Your task to perform on an android device: Empty the shopping cart on newegg.com. Search for usb-c to usb-b on newegg.com, select the first entry, and add it to the cart. Image 0: 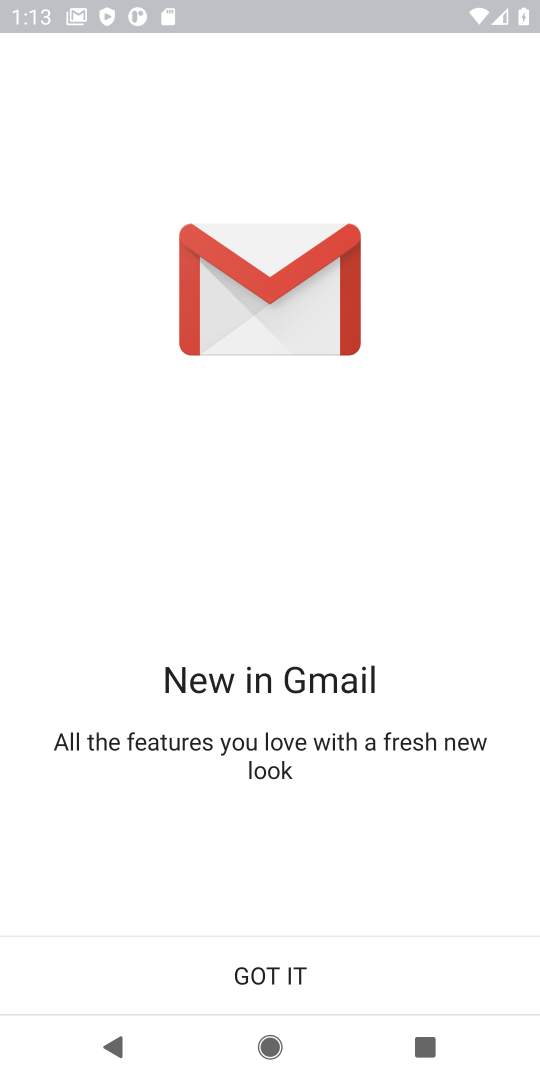
Step 0: press home button
Your task to perform on an android device: Empty the shopping cart on newegg.com. Search for usb-c to usb-b on newegg.com, select the first entry, and add it to the cart. Image 1: 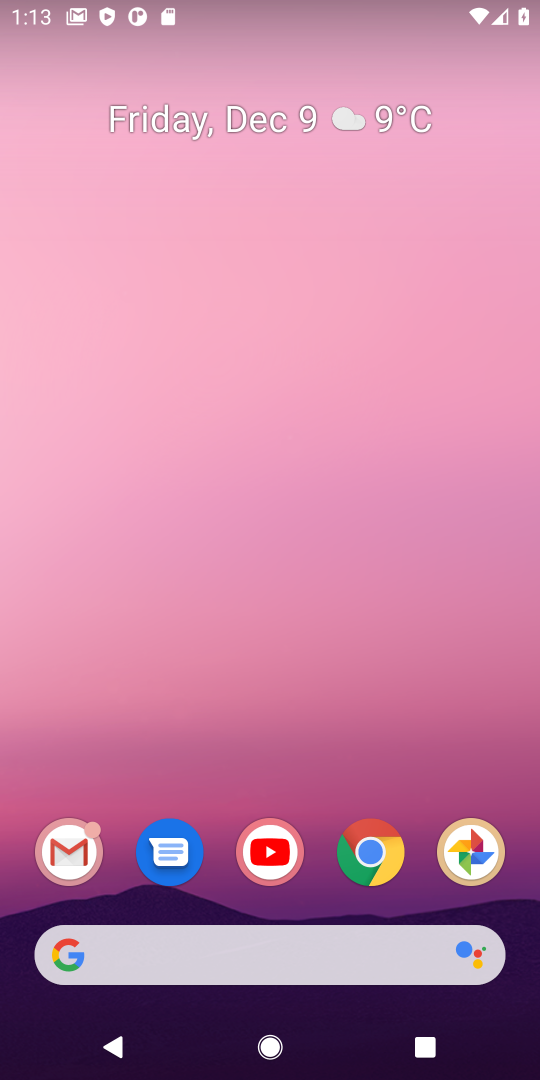
Step 1: click (373, 858)
Your task to perform on an android device: Empty the shopping cart on newegg.com. Search for usb-c to usb-b on newegg.com, select the first entry, and add it to the cart. Image 2: 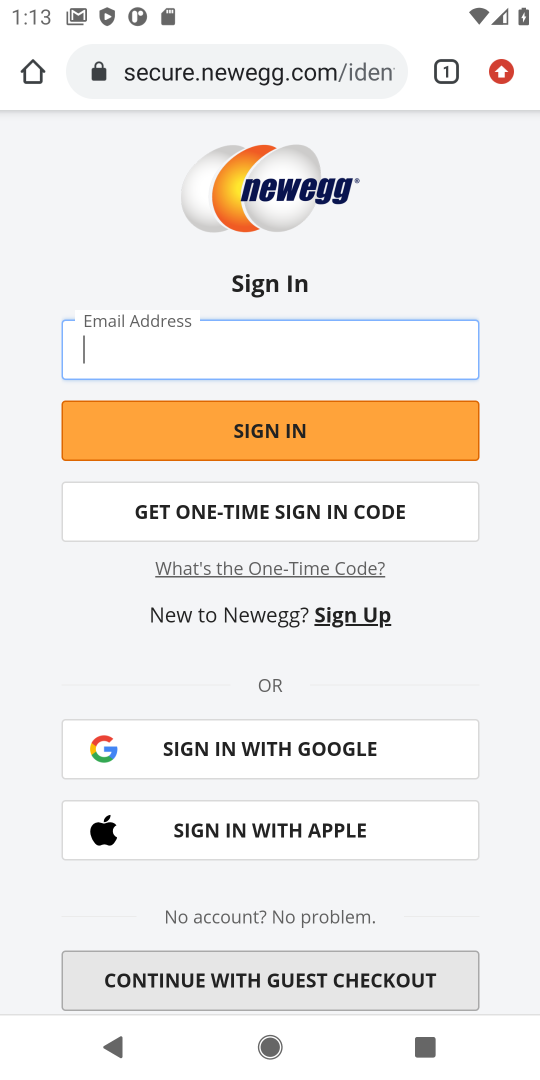
Step 2: click (183, 89)
Your task to perform on an android device: Empty the shopping cart on newegg.com. Search for usb-c to usb-b on newegg.com, select the first entry, and add it to the cart. Image 3: 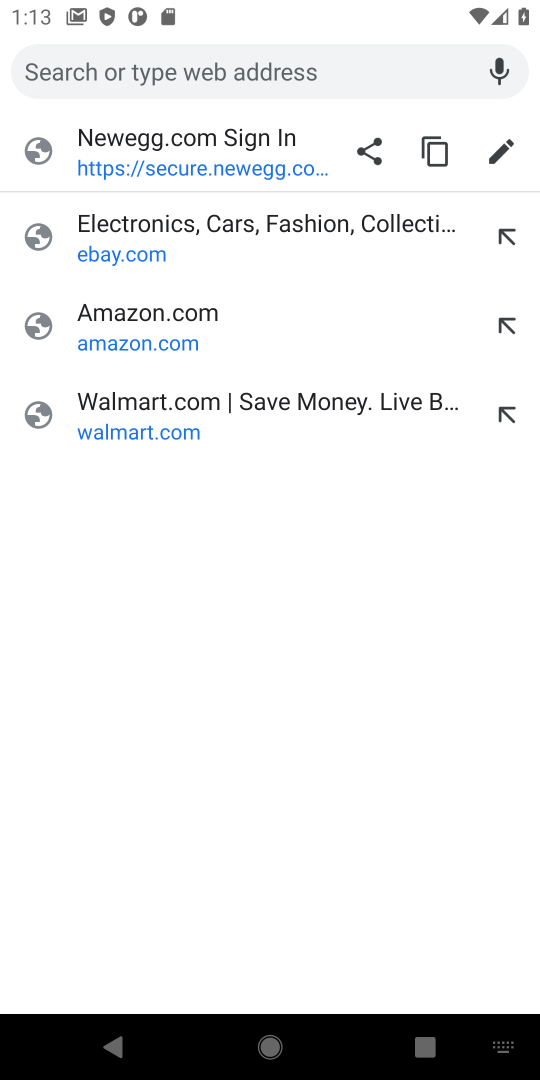
Step 3: type "newegg.com"
Your task to perform on an android device: Empty the shopping cart on newegg.com. Search for usb-c to usb-b on newegg.com, select the first entry, and add it to the cart. Image 4: 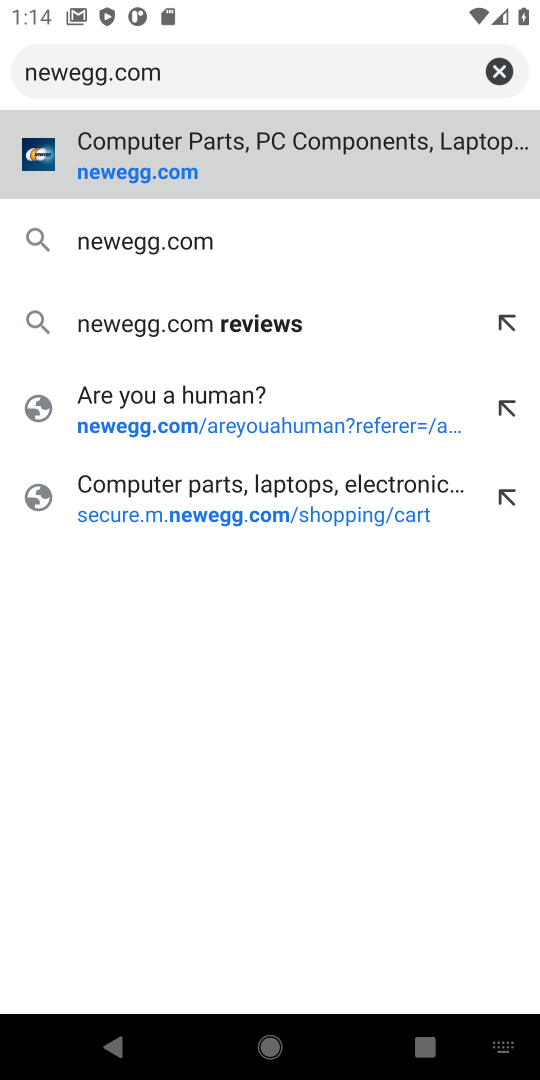
Step 4: click (184, 163)
Your task to perform on an android device: Empty the shopping cart on newegg.com. Search for usb-c to usb-b on newegg.com, select the first entry, and add it to the cart. Image 5: 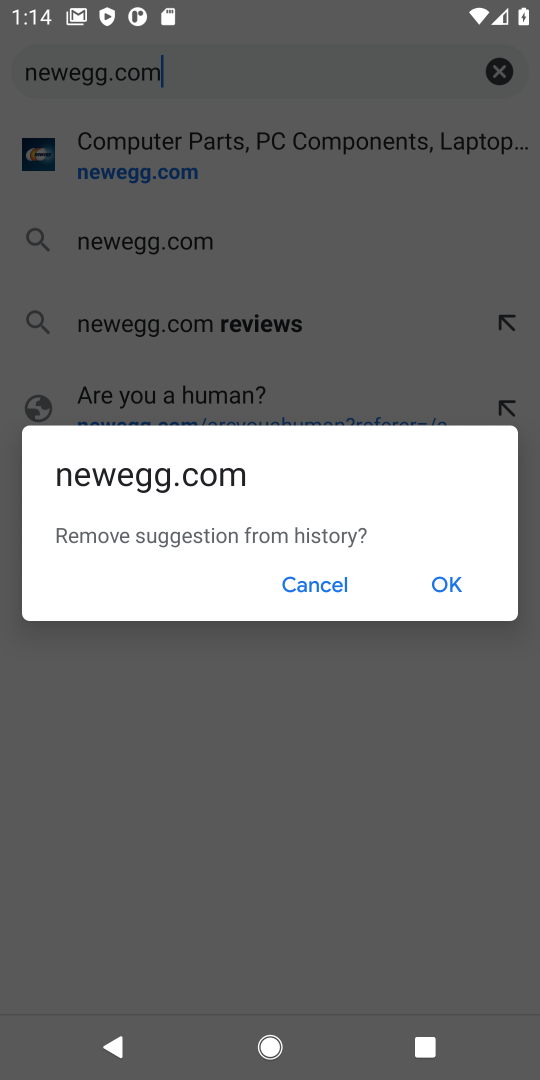
Step 5: click (450, 591)
Your task to perform on an android device: Empty the shopping cart on newegg.com. Search for usb-c to usb-b on newegg.com, select the first entry, and add it to the cart. Image 6: 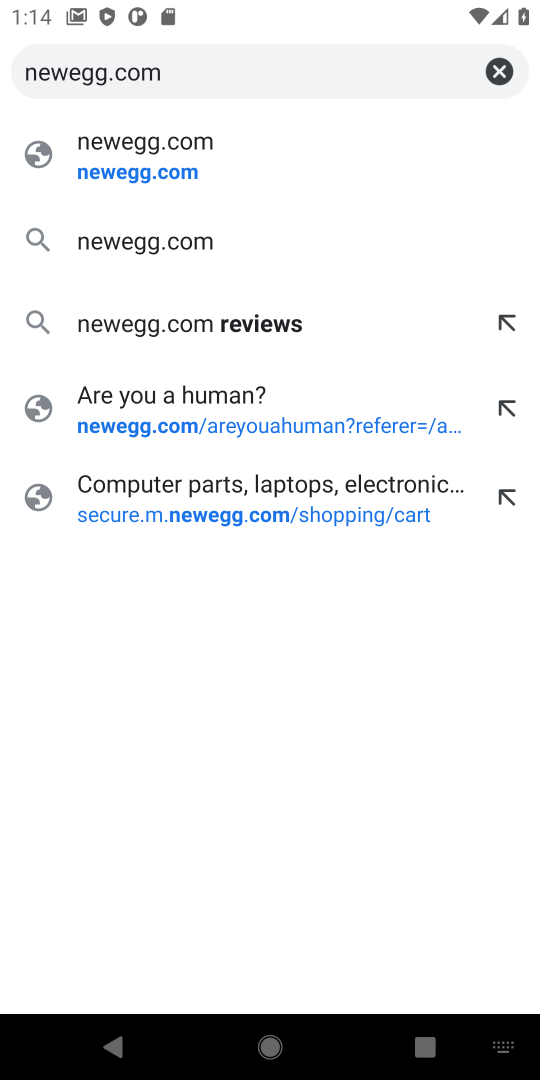
Step 6: click (141, 170)
Your task to perform on an android device: Empty the shopping cart on newegg.com. Search for usb-c to usb-b on newegg.com, select the first entry, and add it to the cart. Image 7: 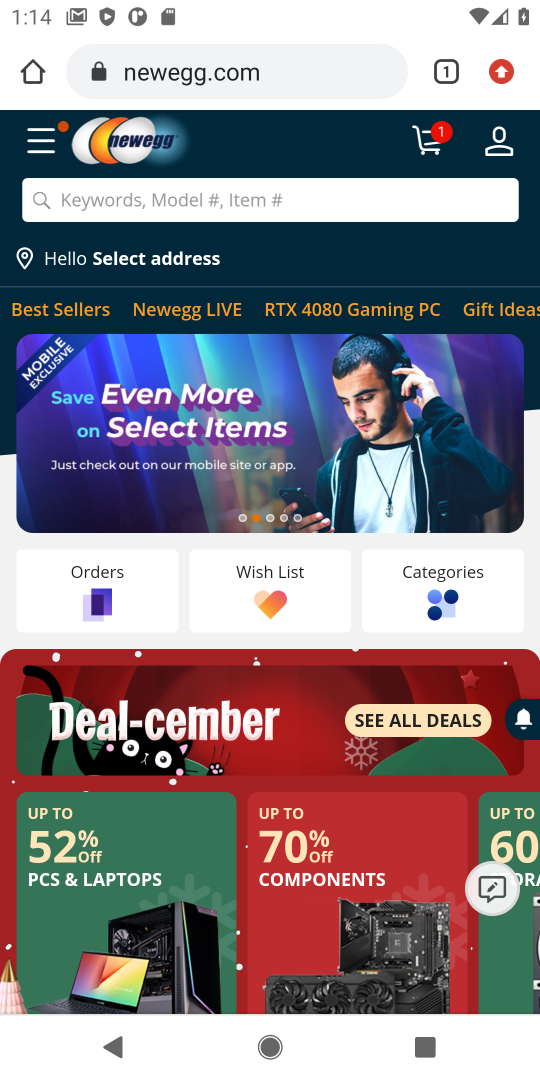
Step 7: click (437, 149)
Your task to perform on an android device: Empty the shopping cart on newegg.com. Search for usb-c to usb-b on newegg.com, select the first entry, and add it to the cart. Image 8: 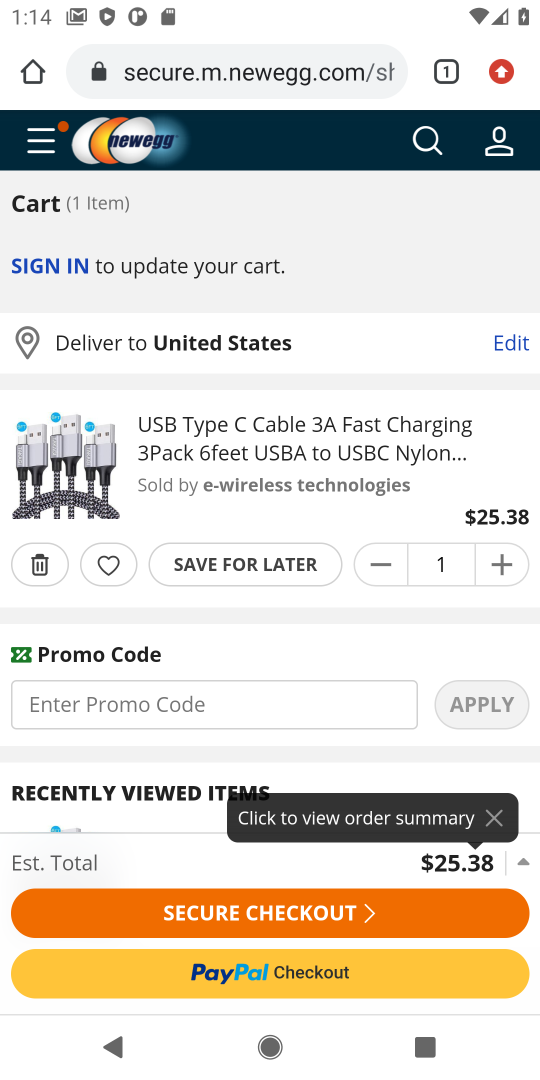
Step 8: click (37, 573)
Your task to perform on an android device: Empty the shopping cart on newegg.com. Search for usb-c to usb-b on newegg.com, select the first entry, and add it to the cart. Image 9: 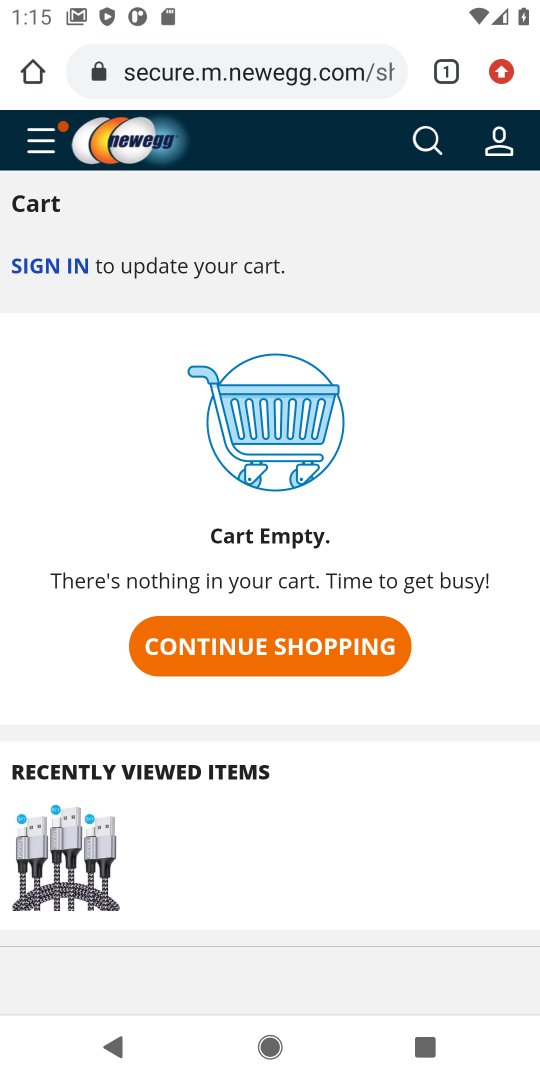
Step 9: click (430, 120)
Your task to perform on an android device: Empty the shopping cart on newegg.com. Search for usb-c to usb-b on newegg.com, select the first entry, and add it to the cart. Image 10: 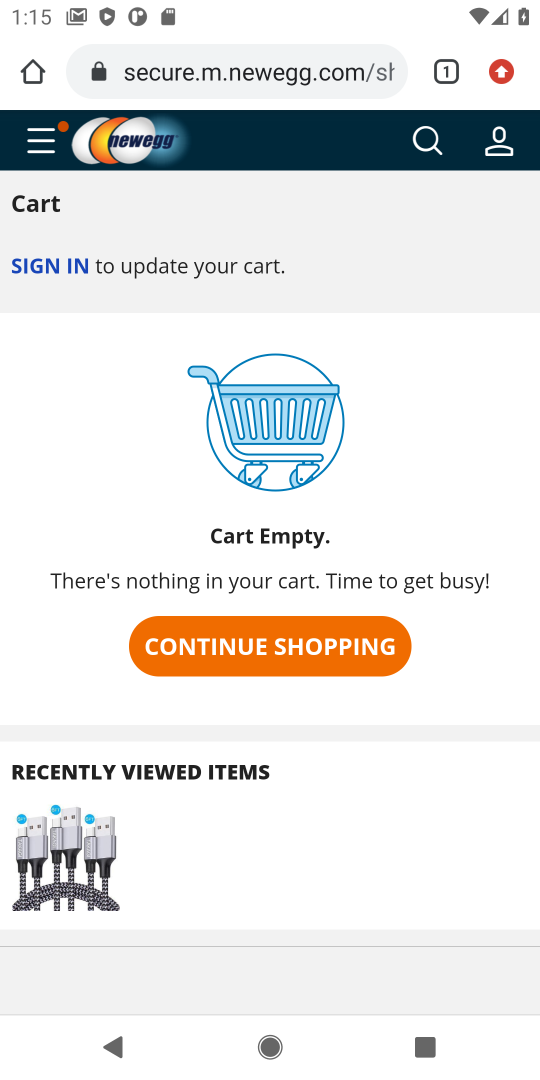
Step 10: click (427, 146)
Your task to perform on an android device: Empty the shopping cart on newegg.com. Search for usb-c to usb-b on newegg.com, select the first entry, and add it to the cart. Image 11: 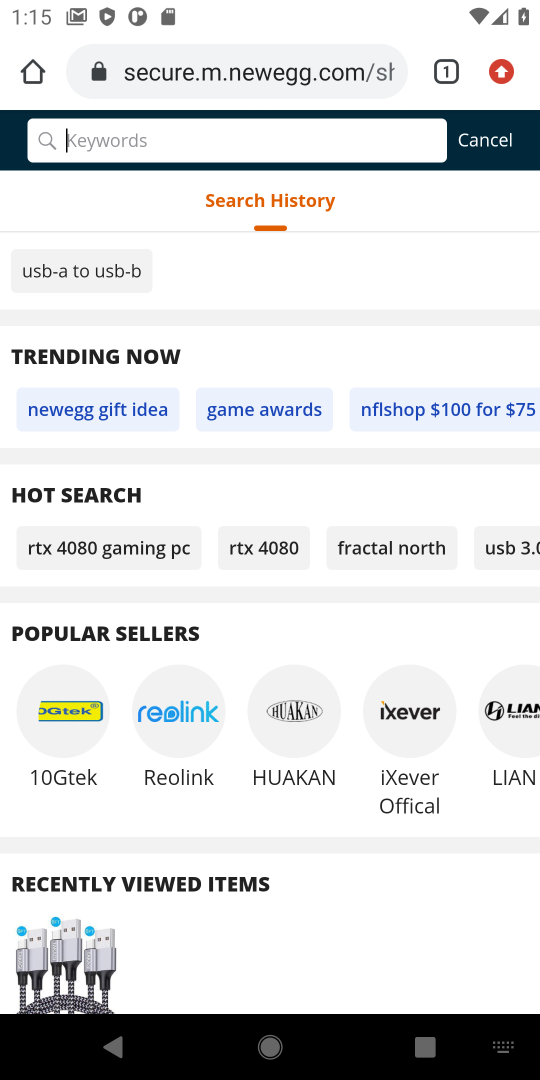
Step 11: type "usb-c to usb-b"
Your task to perform on an android device: Empty the shopping cart on newegg.com. Search for usb-c to usb-b on newegg.com, select the first entry, and add it to the cart. Image 12: 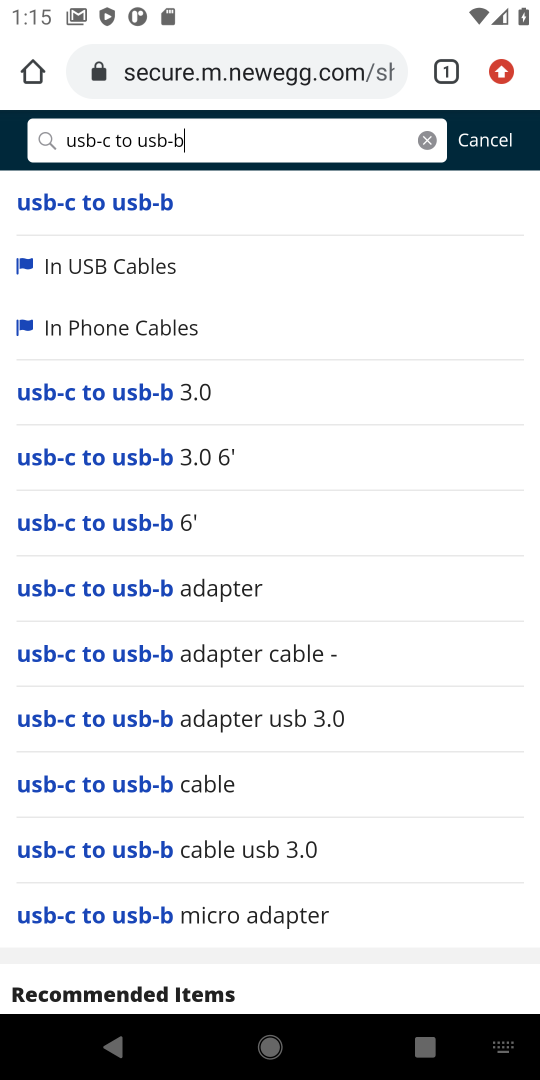
Step 12: press enter
Your task to perform on an android device: Empty the shopping cart on newegg.com. Search for usb-c to usb-b on newegg.com, select the first entry, and add it to the cart. Image 13: 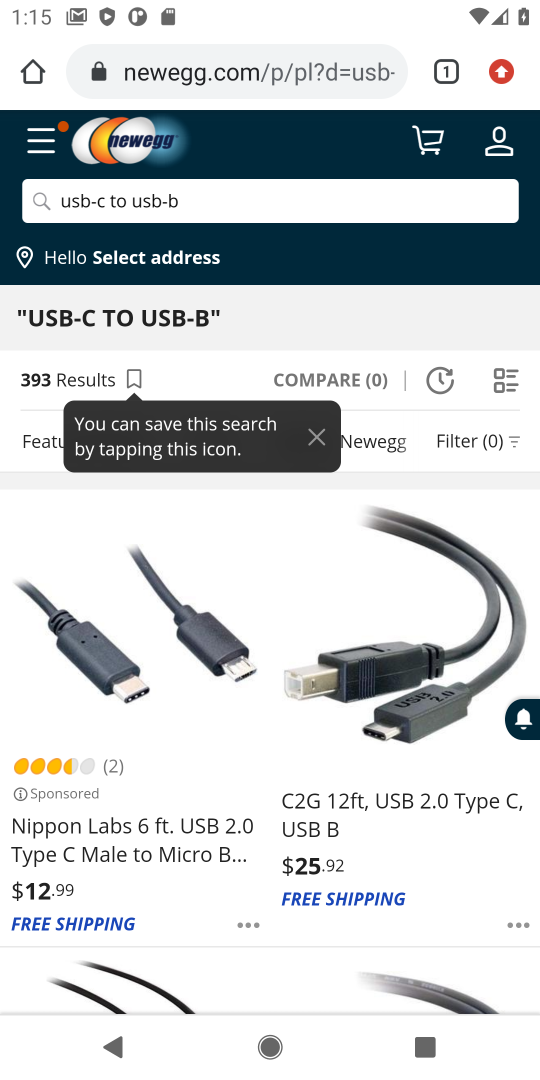
Step 13: click (163, 657)
Your task to perform on an android device: Empty the shopping cart on newegg.com. Search for usb-c to usb-b on newegg.com, select the first entry, and add it to the cart. Image 14: 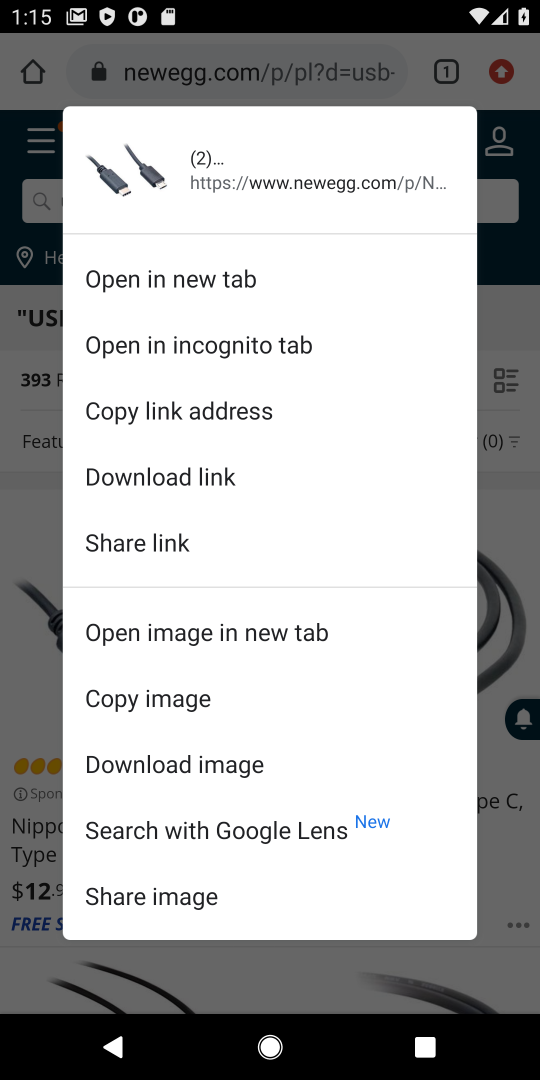
Step 14: click (53, 636)
Your task to perform on an android device: Empty the shopping cart on newegg.com. Search for usb-c to usb-b on newegg.com, select the first entry, and add it to the cart. Image 15: 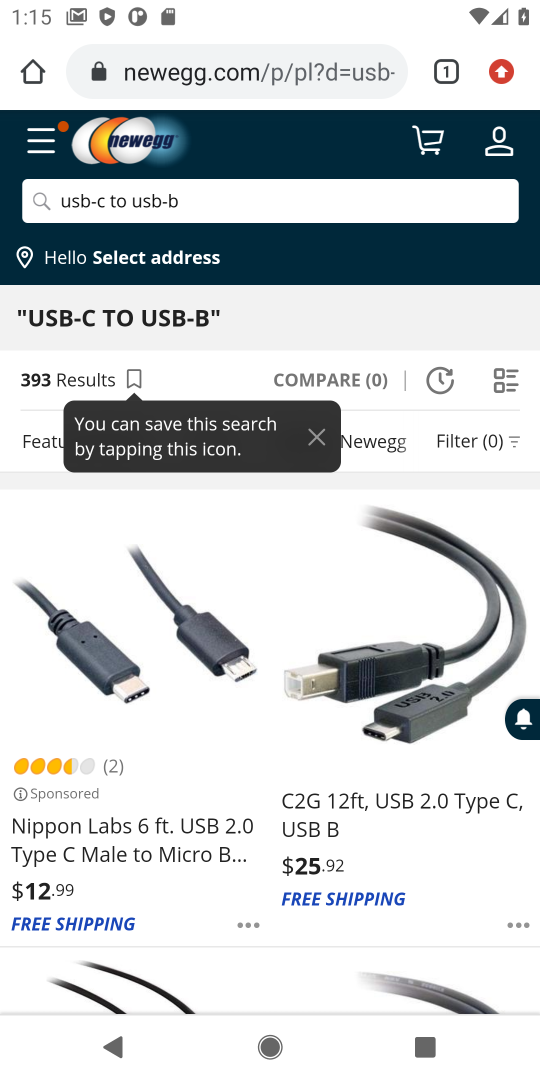
Step 15: click (45, 636)
Your task to perform on an android device: Empty the shopping cart on newegg.com. Search for usb-c to usb-b on newegg.com, select the first entry, and add it to the cart. Image 16: 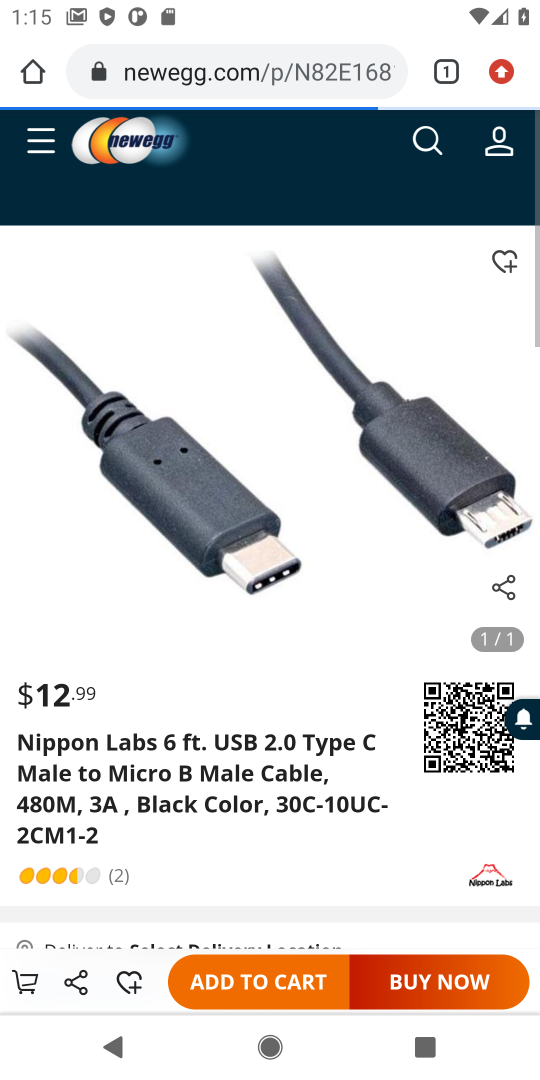
Step 16: click (97, 665)
Your task to perform on an android device: Empty the shopping cart on newegg.com. Search for usb-c to usb-b on newegg.com, select the first entry, and add it to the cart. Image 17: 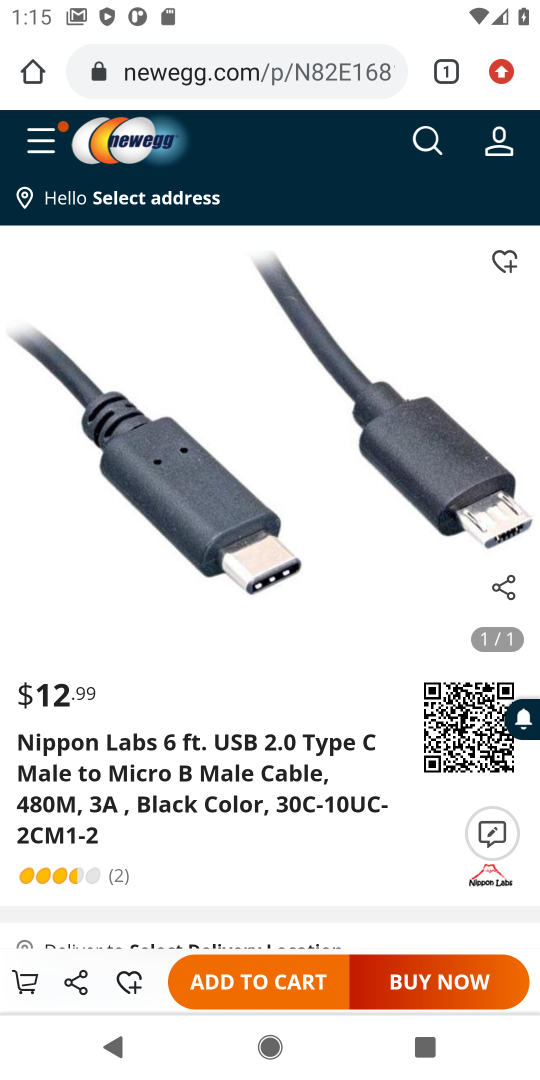
Step 17: drag from (302, 894) to (314, 585)
Your task to perform on an android device: Empty the shopping cart on newegg.com. Search for usb-c to usb-b on newegg.com, select the first entry, and add it to the cart. Image 18: 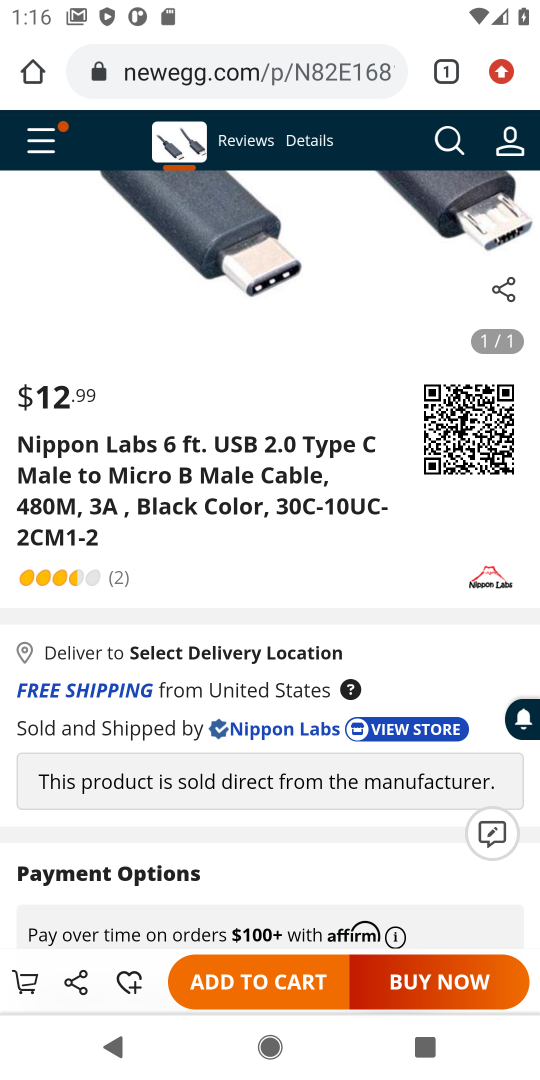
Step 18: click (278, 979)
Your task to perform on an android device: Empty the shopping cart on newegg.com. Search for usb-c to usb-b on newegg.com, select the first entry, and add it to the cart. Image 19: 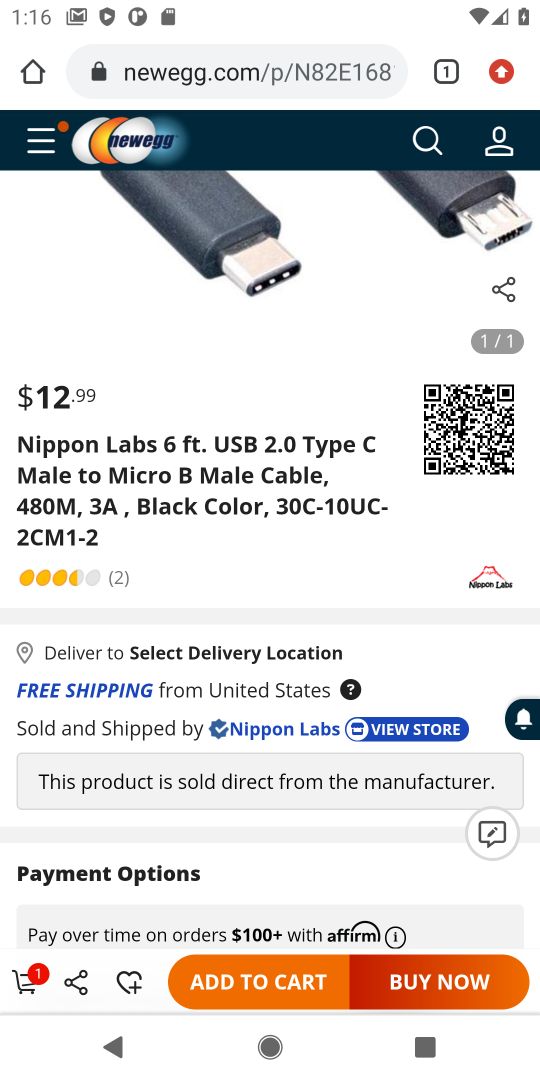
Step 19: click (29, 988)
Your task to perform on an android device: Empty the shopping cart on newegg.com. Search for usb-c to usb-b on newegg.com, select the first entry, and add it to the cart. Image 20: 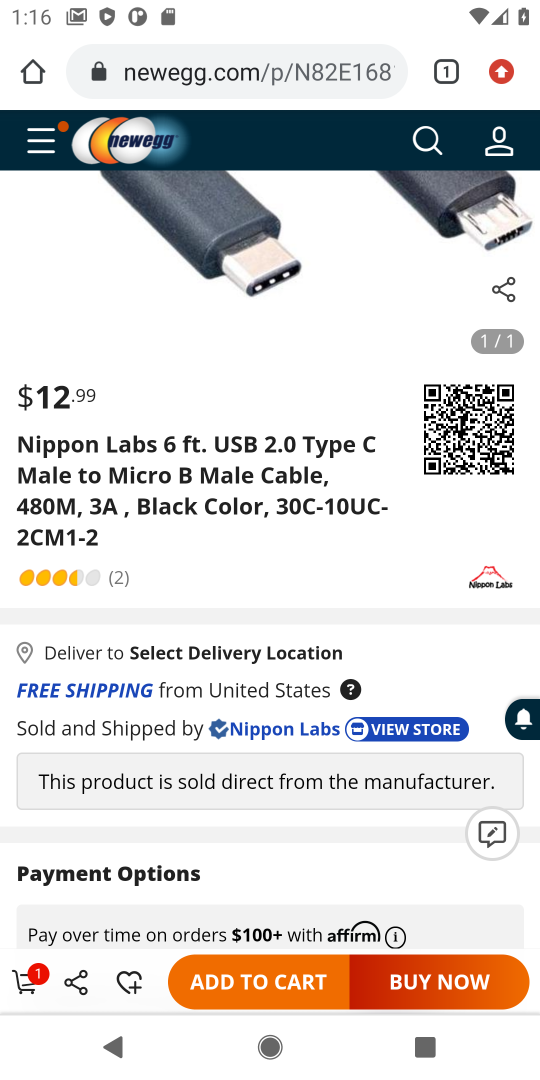
Step 20: click (28, 982)
Your task to perform on an android device: Empty the shopping cart on newegg.com. Search for usb-c to usb-b on newegg.com, select the first entry, and add it to the cart. Image 21: 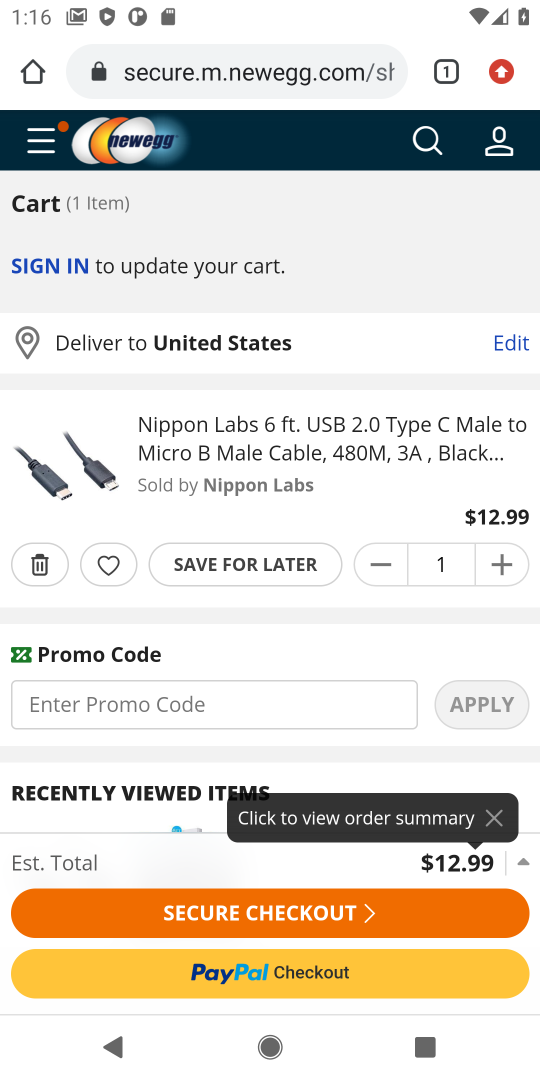
Step 21: click (223, 916)
Your task to perform on an android device: Empty the shopping cart on newegg.com. Search for usb-c to usb-b on newegg.com, select the first entry, and add it to the cart. Image 22: 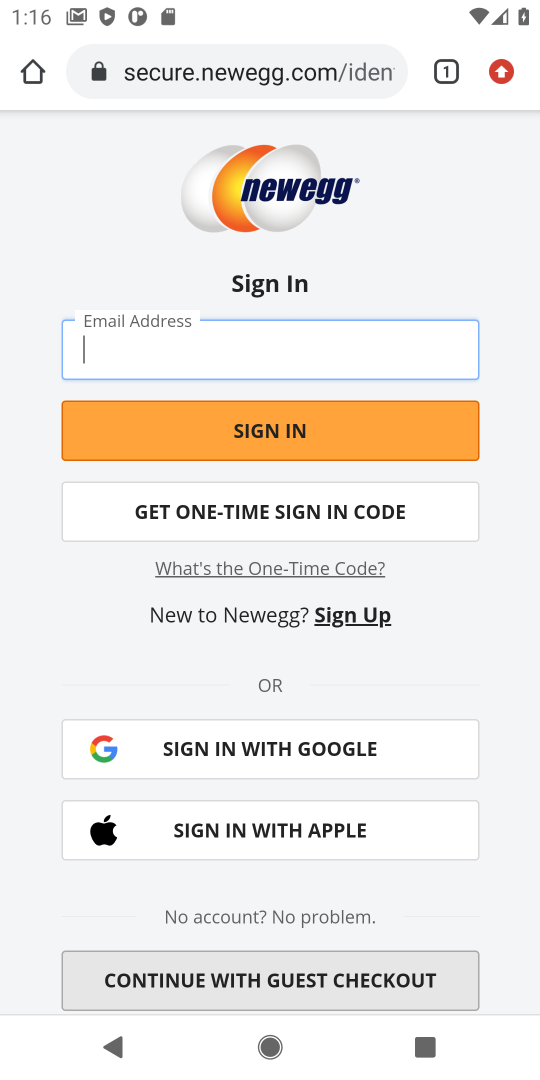
Step 22: task complete